Your task to perform on an android device: Open wifi settings Image 0: 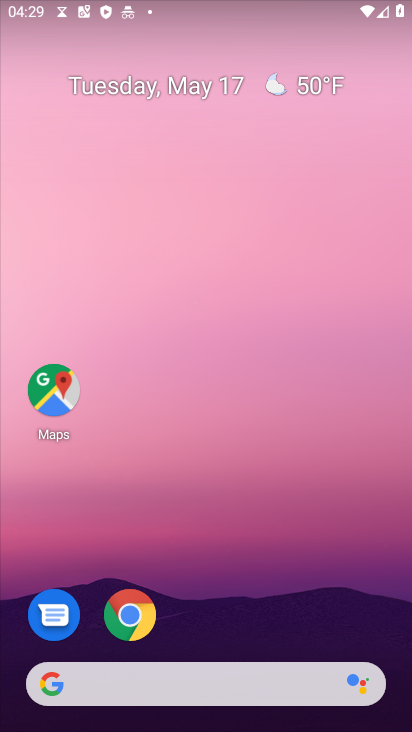
Step 0: drag from (269, 707) to (240, 119)
Your task to perform on an android device: Open wifi settings Image 1: 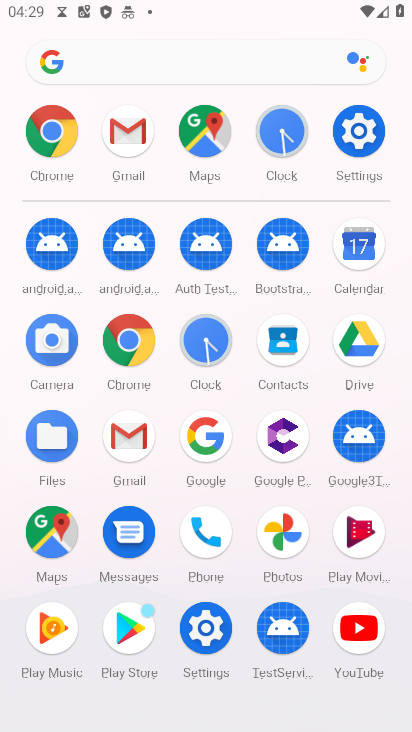
Step 1: click (354, 143)
Your task to perform on an android device: Open wifi settings Image 2: 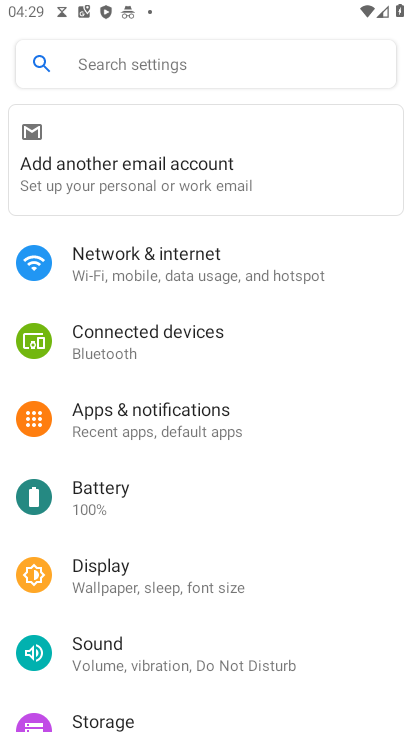
Step 2: click (110, 264)
Your task to perform on an android device: Open wifi settings Image 3: 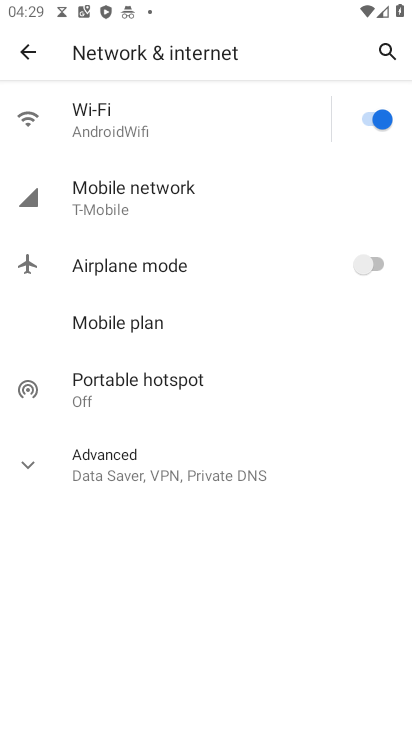
Step 3: task complete